Your task to perform on an android device: Show me popular games on the Play Store Image 0: 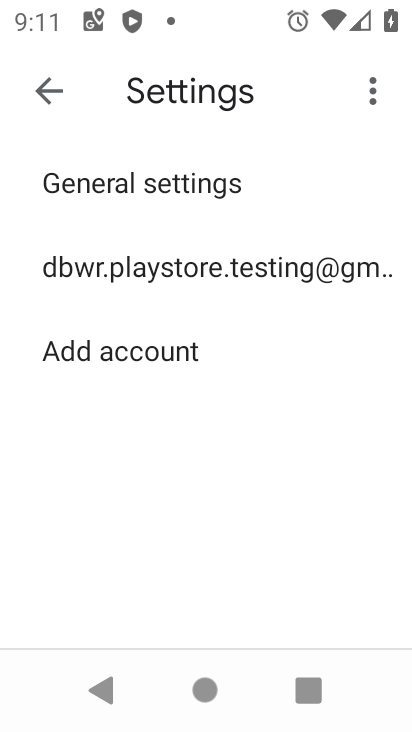
Step 0: press home button
Your task to perform on an android device: Show me popular games on the Play Store Image 1: 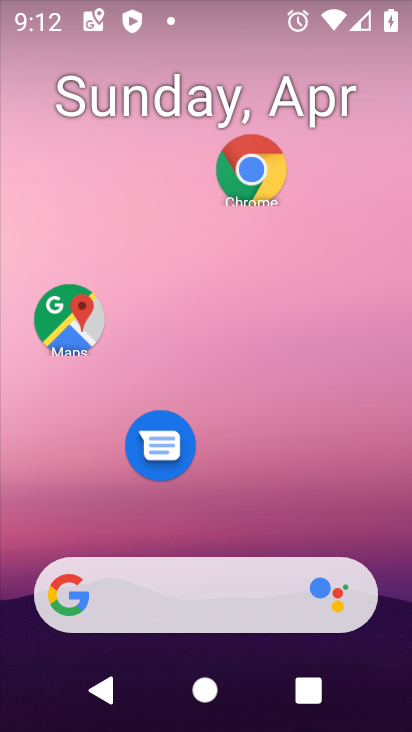
Step 1: drag from (278, 512) to (246, 6)
Your task to perform on an android device: Show me popular games on the Play Store Image 2: 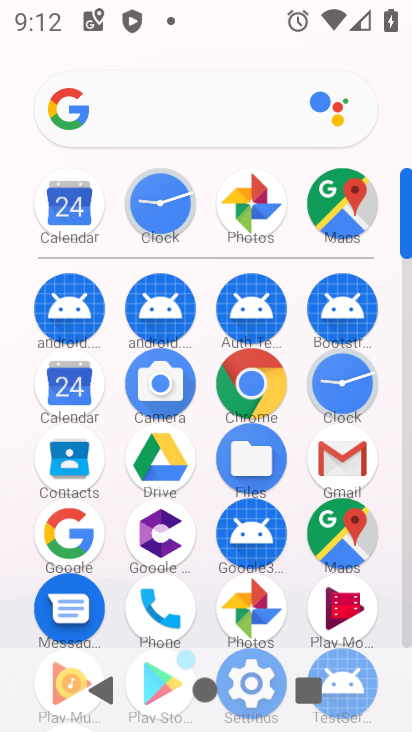
Step 2: drag from (205, 578) to (204, 187)
Your task to perform on an android device: Show me popular games on the Play Store Image 3: 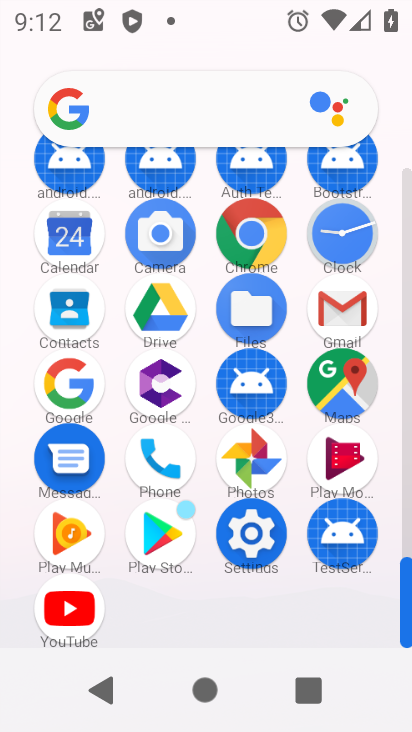
Step 3: click (165, 540)
Your task to perform on an android device: Show me popular games on the Play Store Image 4: 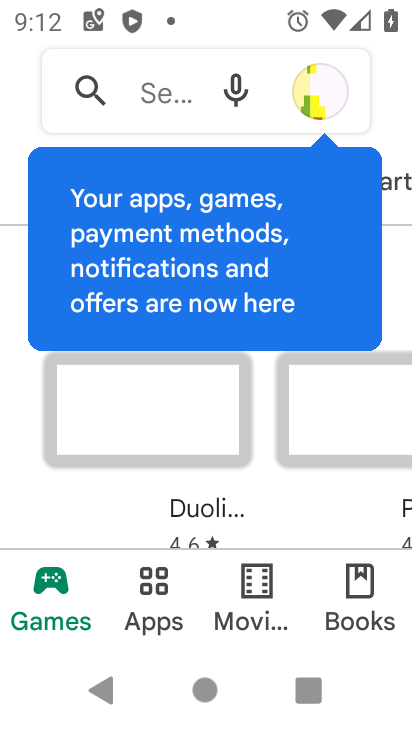
Step 4: task complete